Your task to perform on an android device: Open CNN.com Image 0: 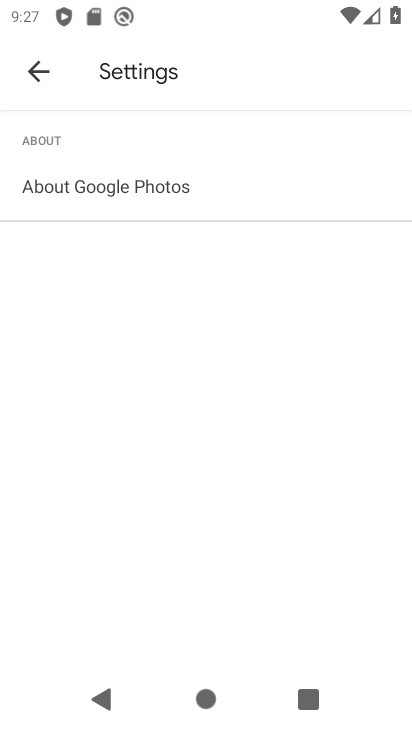
Step 0: press home button
Your task to perform on an android device: Open CNN.com Image 1: 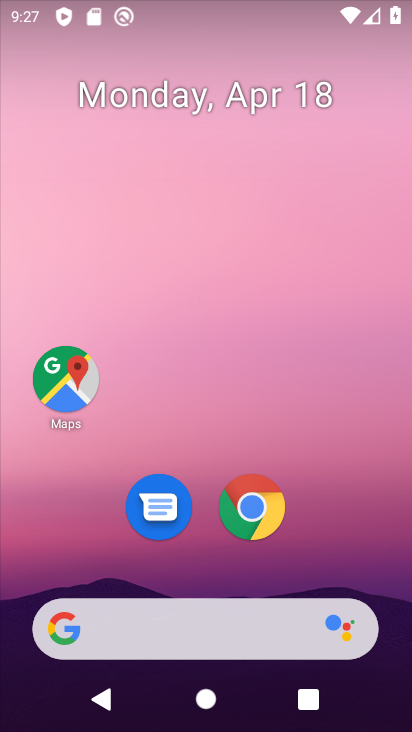
Step 1: click (243, 518)
Your task to perform on an android device: Open CNN.com Image 2: 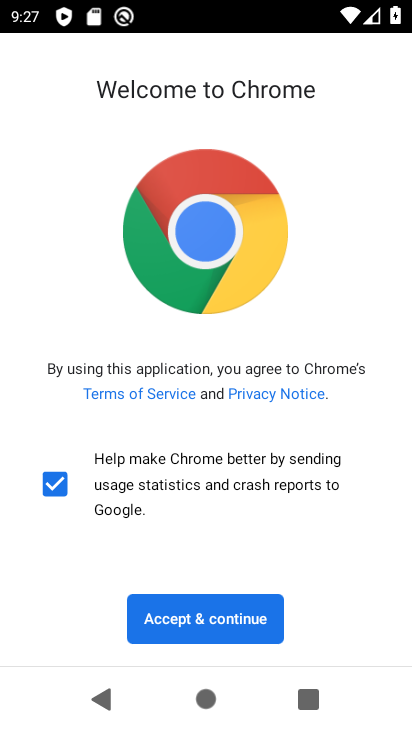
Step 2: click (206, 612)
Your task to perform on an android device: Open CNN.com Image 3: 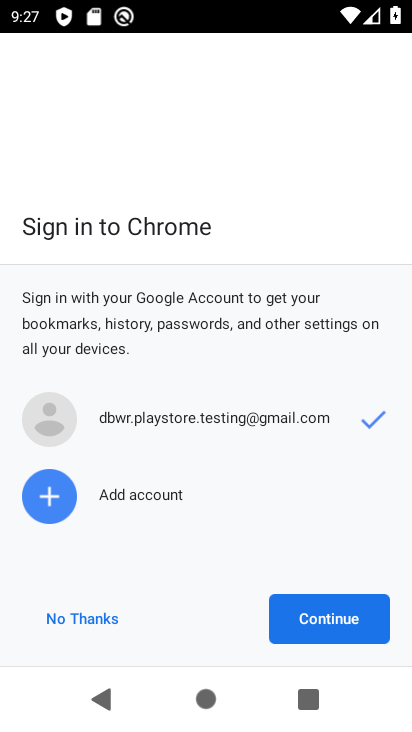
Step 3: click (303, 618)
Your task to perform on an android device: Open CNN.com Image 4: 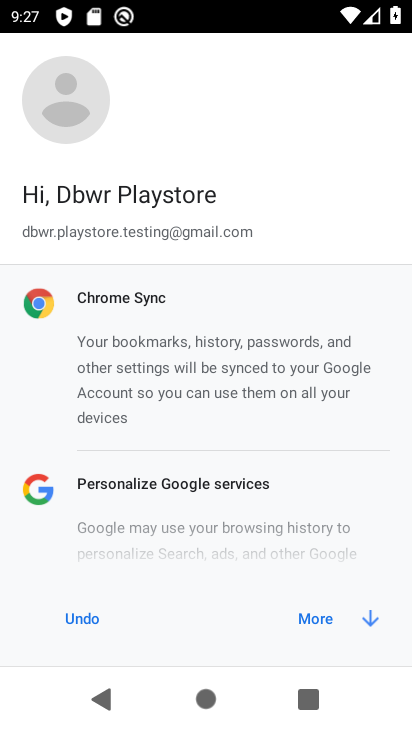
Step 4: click (299, 614)
Your task to perform on an android device: Open CNN.com Image 5: 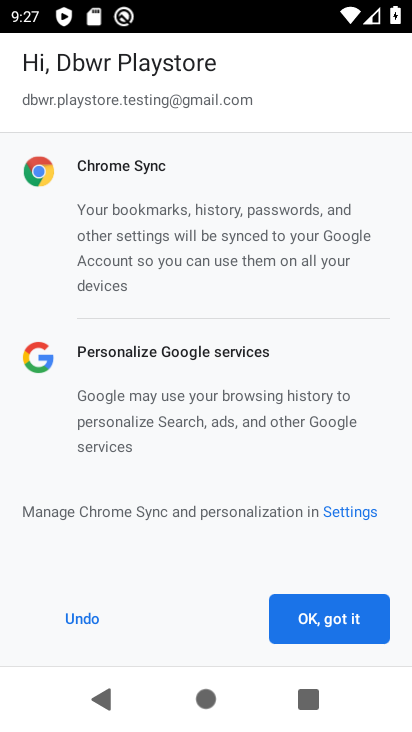
Step 5: click (300, 615)
Your task to perform on an android device: Open CNN.com Image 6: 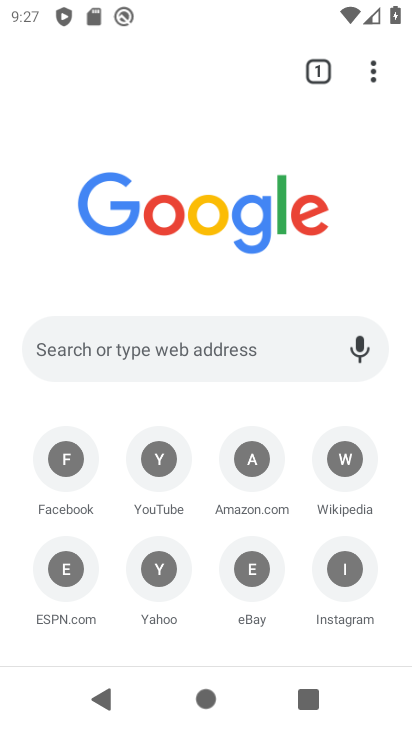
Step 6: click (210, 81)
Your task to perform on an android device: Open CNN.com Image 7: 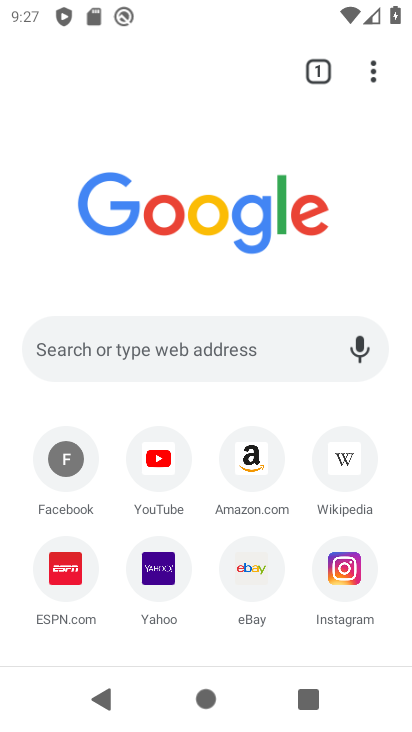
Step 7: click (203, 345)
Your task to perform on an android device: Open CNN.com Image 8: 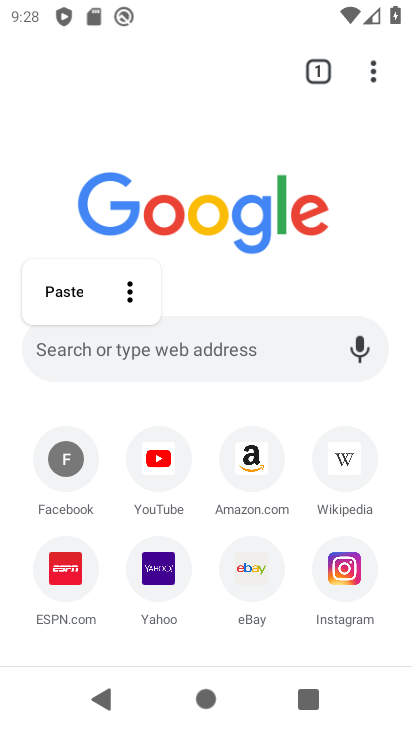
Step 8: type "cnn.com"
Your task to perform on an android device: Open CNN.com Image 9: 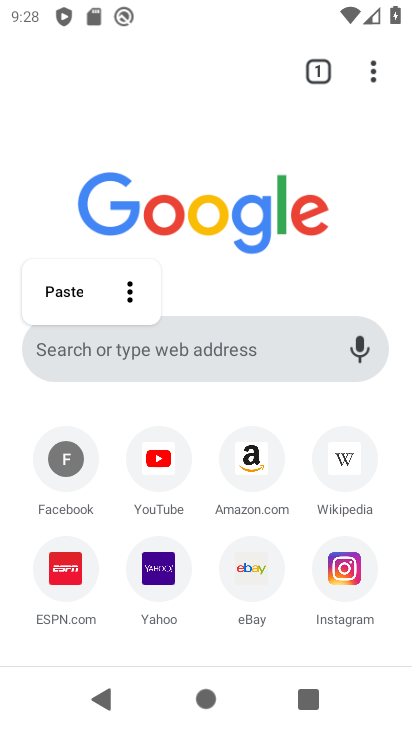
Step 9: click (182, 357)
Your task to perform on an android device: Open CNN.com Image 10: 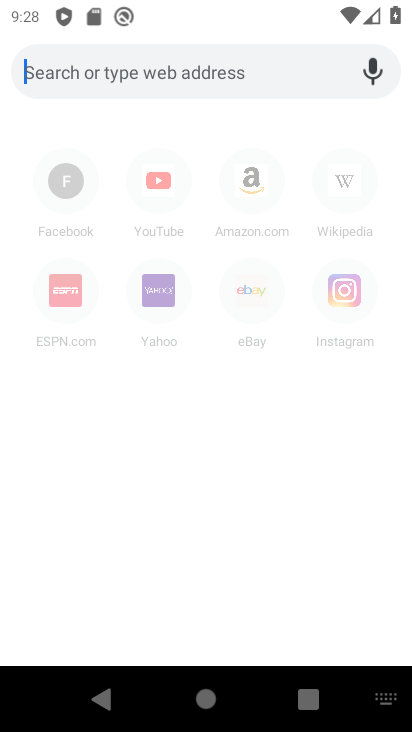
Step 10: type "cnn.com"
Your task to perform on an android device: Open CNN.com Image 11: 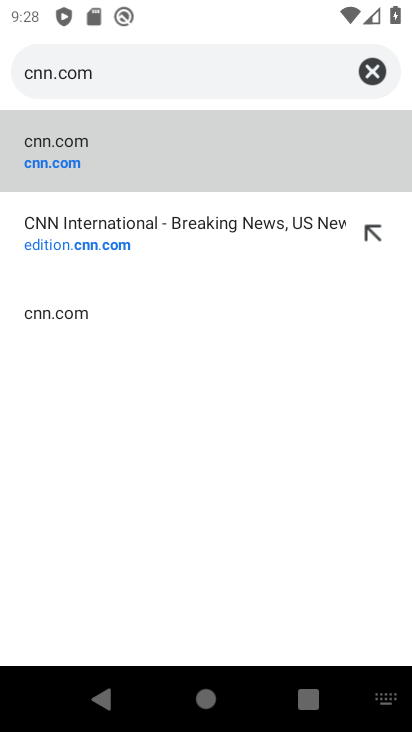
Step 11: click (178, 172)
Your task to perform on an android device: Open CNN.com Image 12: 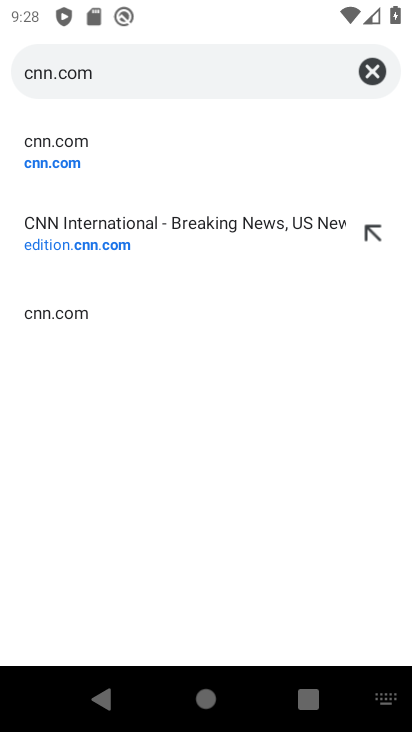
Step 12: click (33, 165)
Your task to perform on an android device: Open CNN.com Image 13: 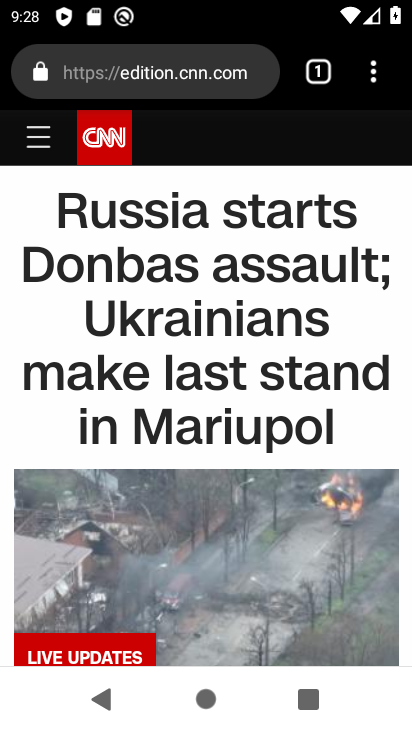
Step 13: task complete